Your task to perform on an android device: uninstall "Pinterest" Image 0: 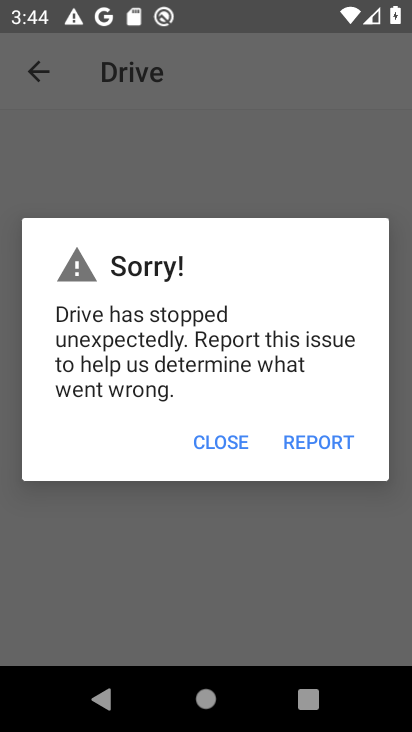
Step 0: press home button
Your task to perform on an android device: uninstall "Pinterest" Image 1: 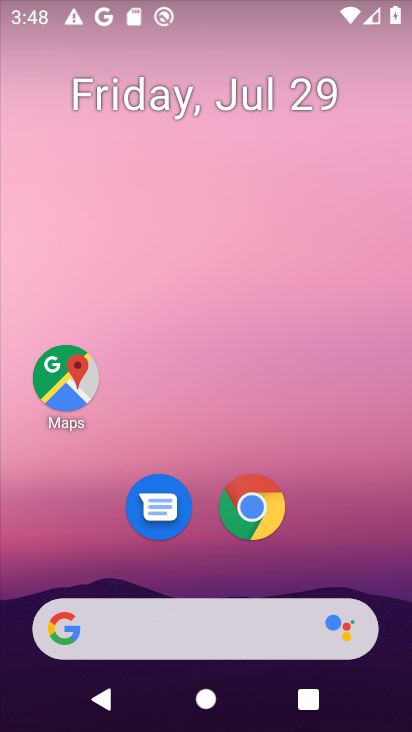
Step 1: task complete